Your task to perform on an android device: Open the Play Movies app and select the watchlist tab. Image 0: 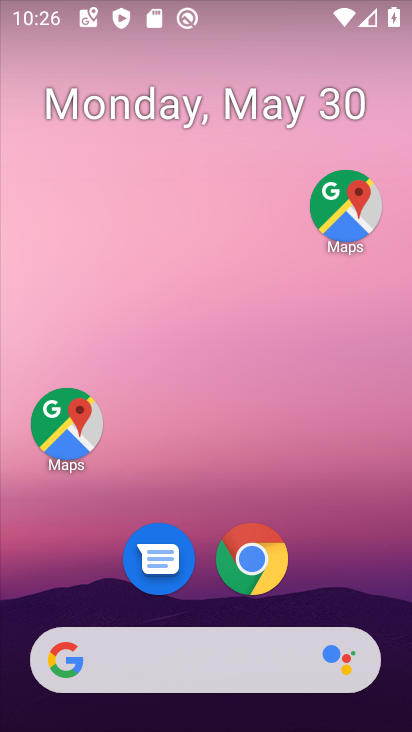
Step 0: drag from (331, 564) to (288, 66)
Your task to perform on an android device: Open the Play Movies app and select the watchlist tab. Image 1: 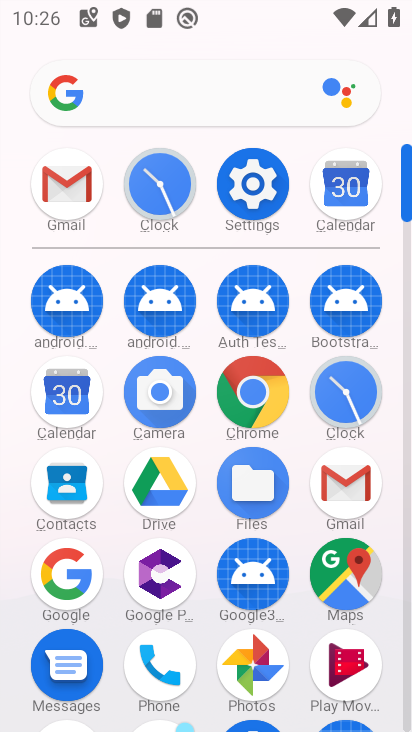
Step 1: click (338, 658)
Your task to perform on an android device: Open the Play Movies app and select the watchlist tab. Image 2: 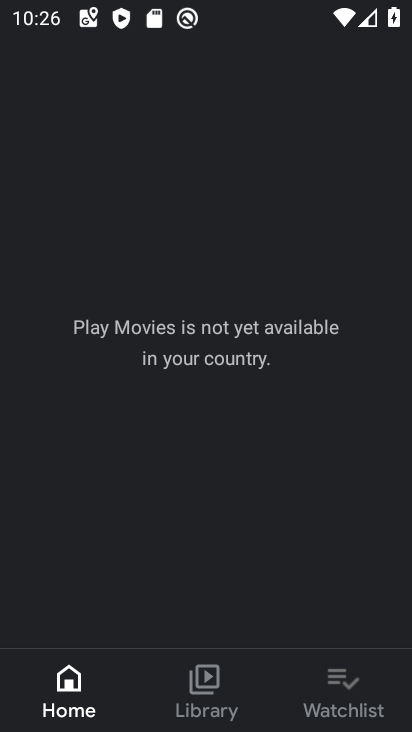
Step 2: click (333, 703)
Your task to perform on an android device: Open the Play Movies app and select the watchlist tab. Image 3: 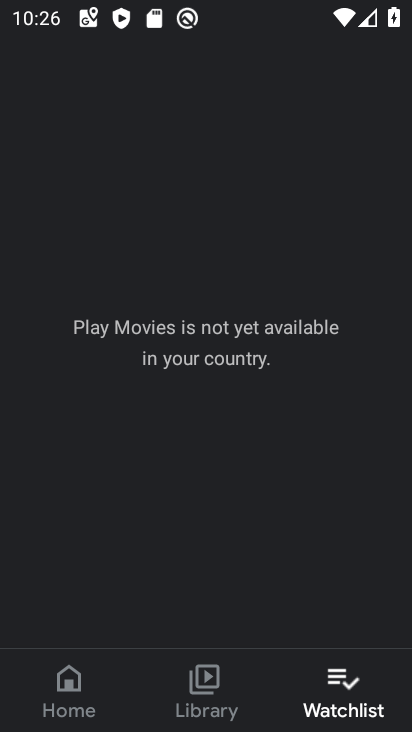
Step 3: task complete